Your task to perform on an android device: turn on the 12-hour format for clock Image 0: 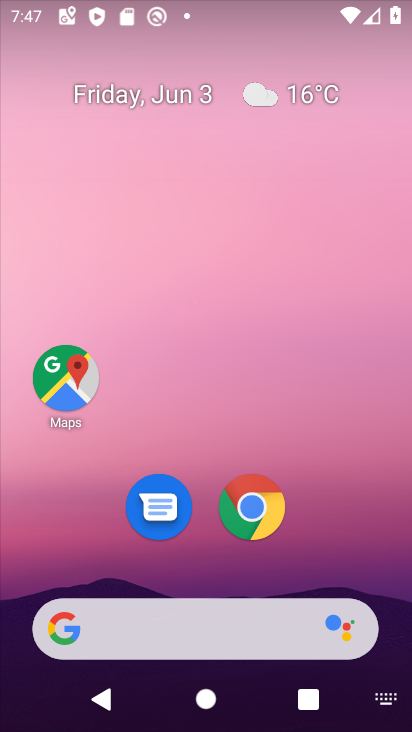
Step 0: drag from (337, 542) to (186, 40)
Your task to perform on an android device: turn on the 12-hour format for clock Image 1: 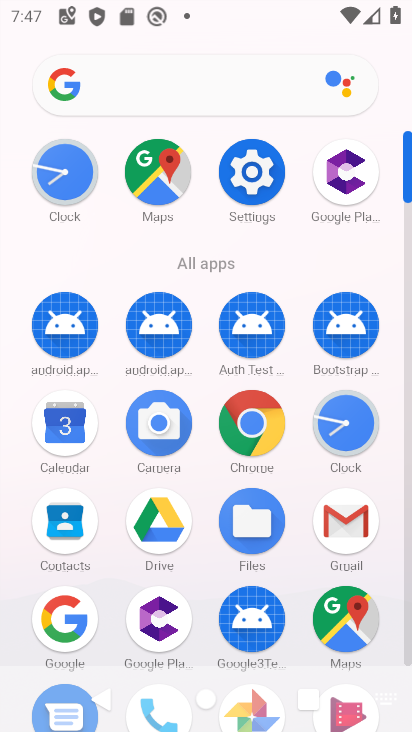
Step 1: click (331, 433)
Your task to perform on an android device: turn on the 12-hour format for clock Image 2: 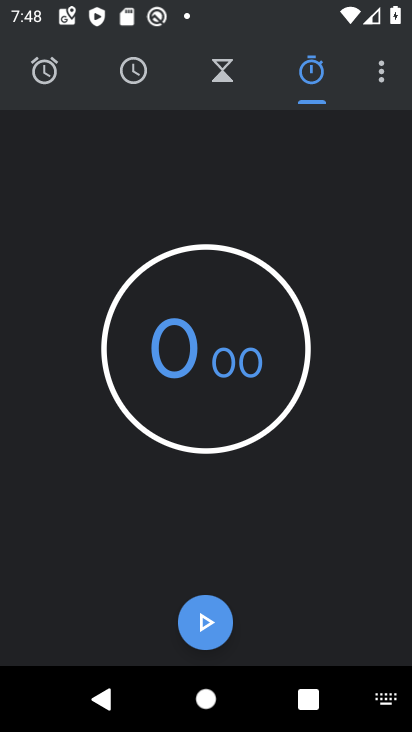
Step 2: click (382, 75)
Your task to perform on an android device: turn on the 12-hour format for clock Image 3: 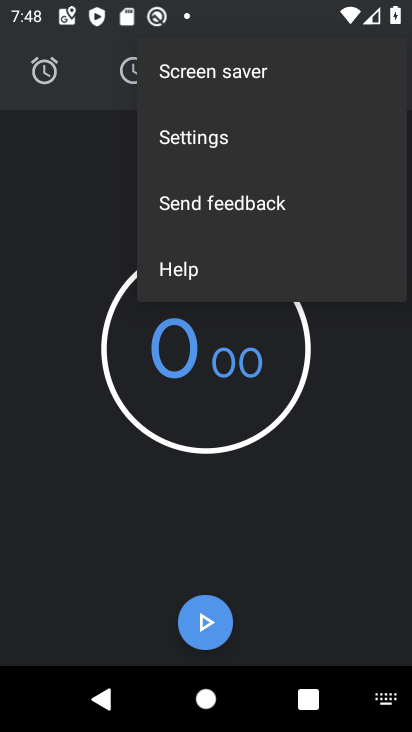
Step 3: click (257, 151)
Your task to perform on an android device: turn on the 12-hour format for clock Image 4: 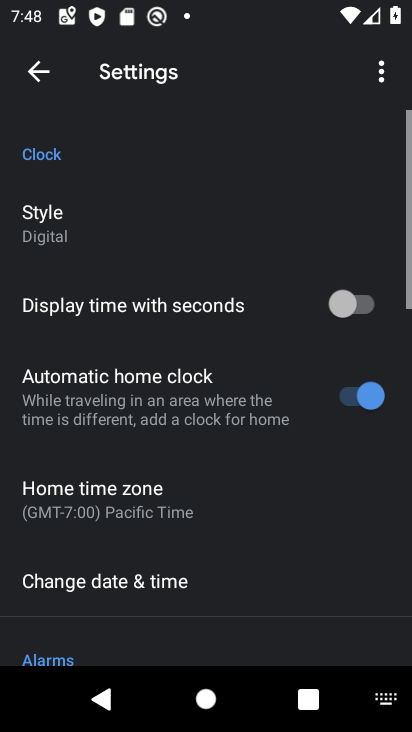
Step 4: click (170, 221)
Your task to perform on an android device: turn on the 12-hour format for clock Image 5: 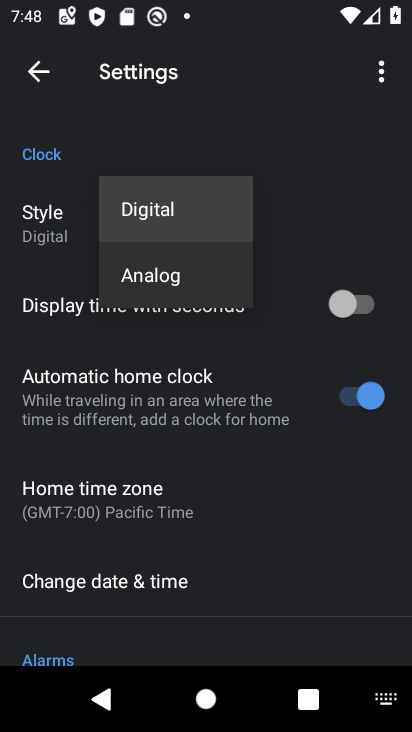
Step 5: click (193, 607)
Your task to perform on an android device: turn on the 12-hour format for clock Image 6: 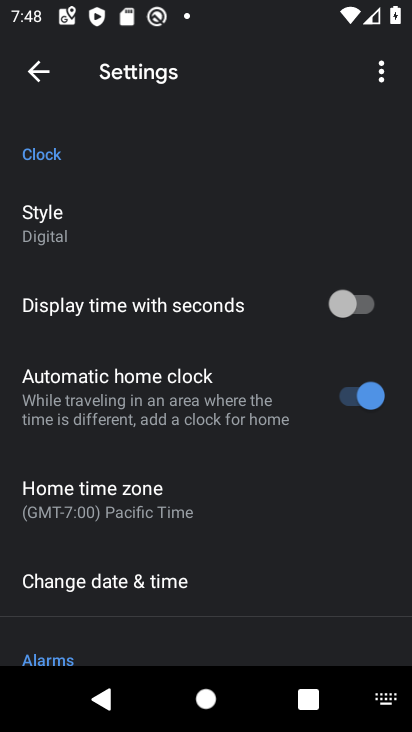
Step 6: click (174, 592)
Your task to perform on an android device: turn on the 12-hour format for clock Image 7: 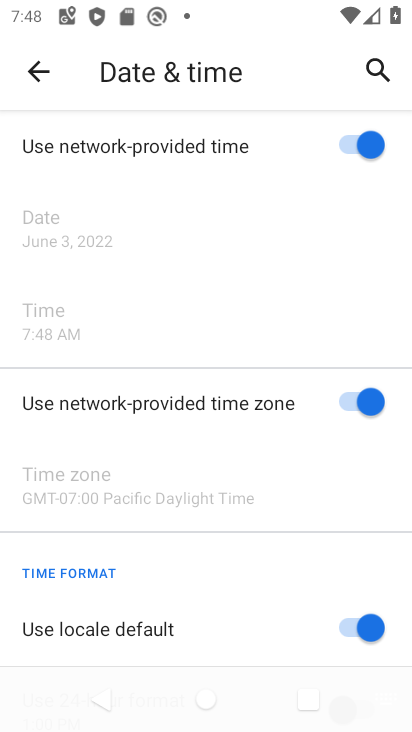
Step 7: task complete